Your task to perform on an android device: Open Maps and search for coffee Image 0: 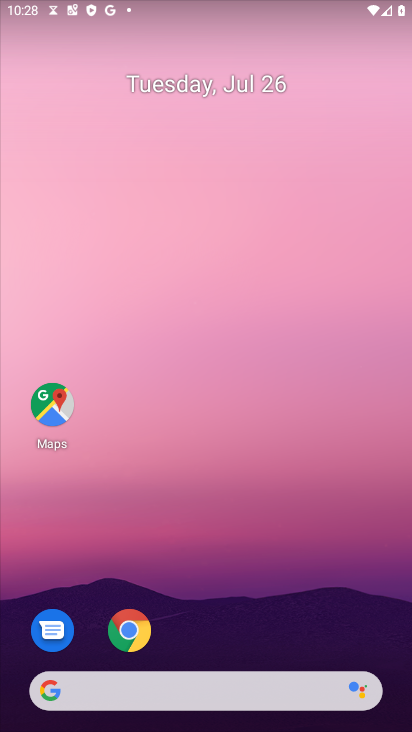
Step 0: click (51, 405)
Your task to perform on an android device: Open Maps and search for coffee Image 1: 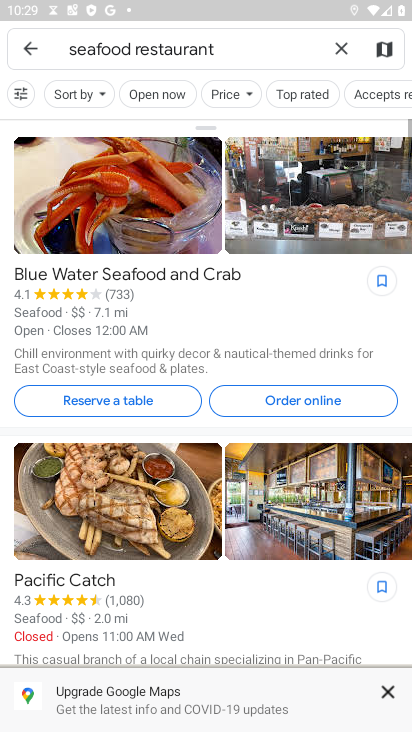
Step 1: click (337, 49)
Your task to perform on an android device: Open Maps and search for coffee Image 2: 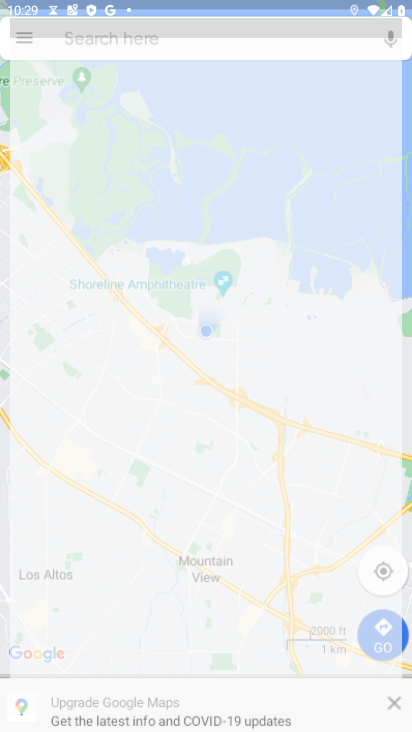
Step 2: click (269, 54)
Your task to perform on an android device: Open Maps and search for coffee Image 3: 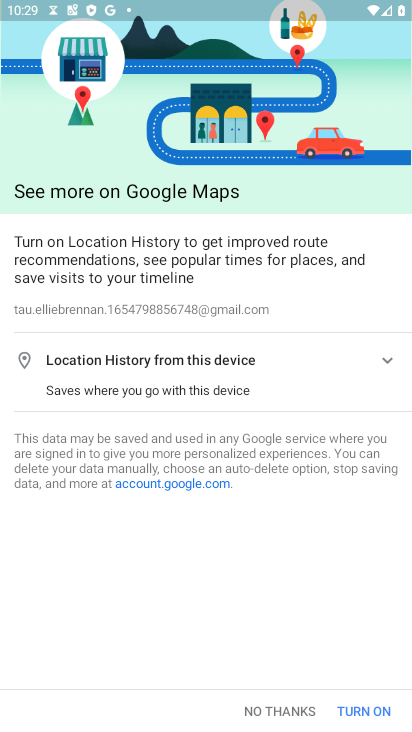
Step 3: click (294, 707)
Your task to perform on an android device: Open Maps and search for coffee Image 4: 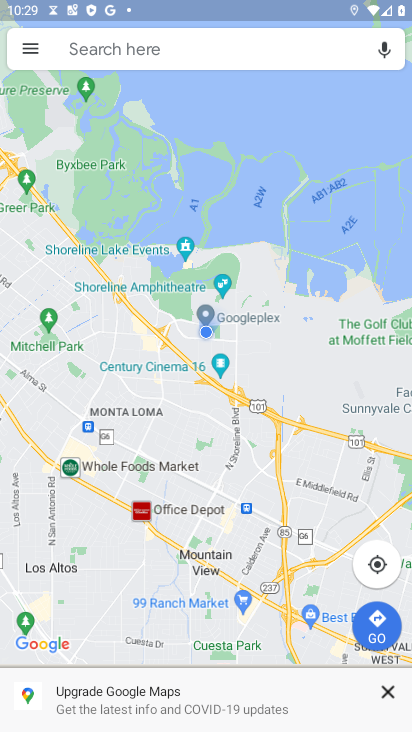
Step 4: click (258, 39)
Your task to perform on an android device: Open Maps and search for coffee Image 5: 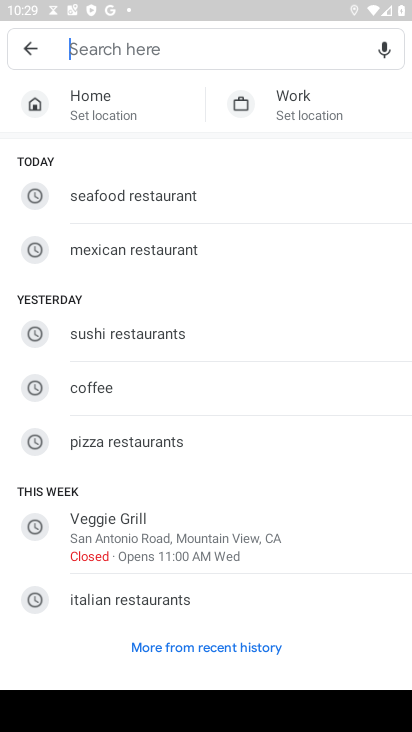
Step 5: type "coffee"
Your task to perform on an android device: Open Maps and search for coffee Image 6: 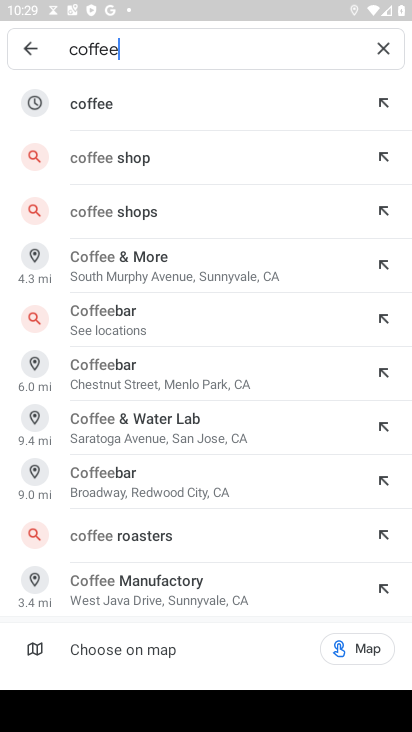
Step 6: click (99, 96)
Your task to perform on an android device: Open Maps and search for coffee Image 7: 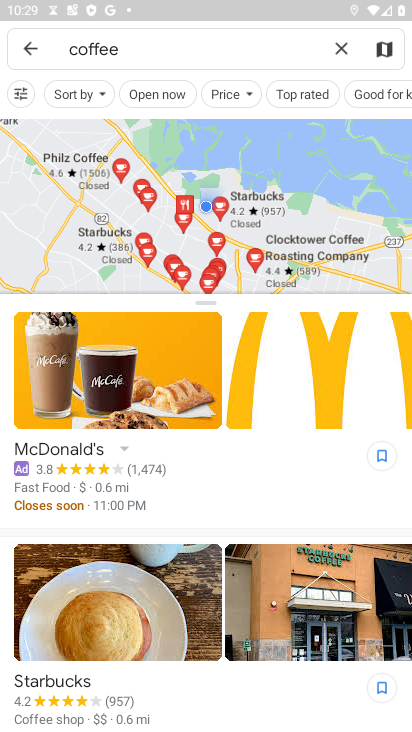
Step 7: task complete